Your task to perform on an android device: toggle notifications settings in the gmail app Image 0: 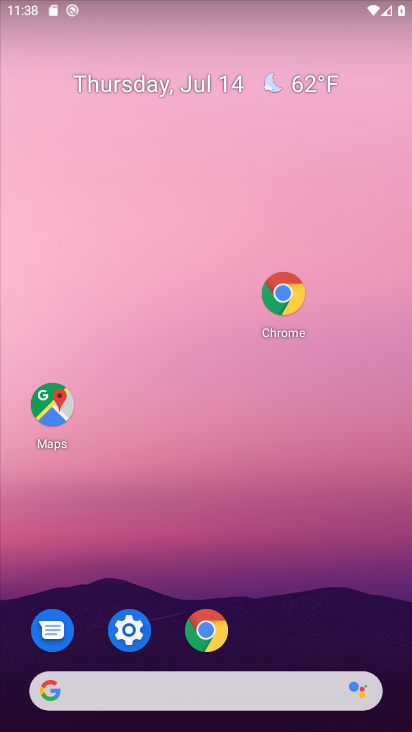
Step 0: drag from (251, 713) to (217, 142)
Your task to perform on an android device: toggle notifications settings in the gmail app Image 1: 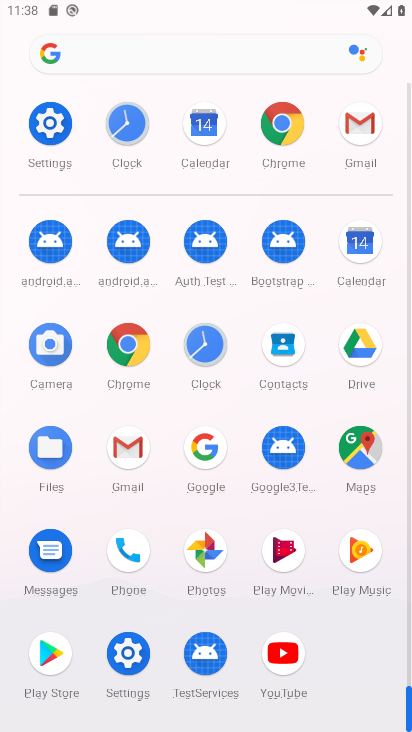
Step 1: click (132, 654)
Your task to perform on an android device: toggle notifications settings in the gmail app Image 2: 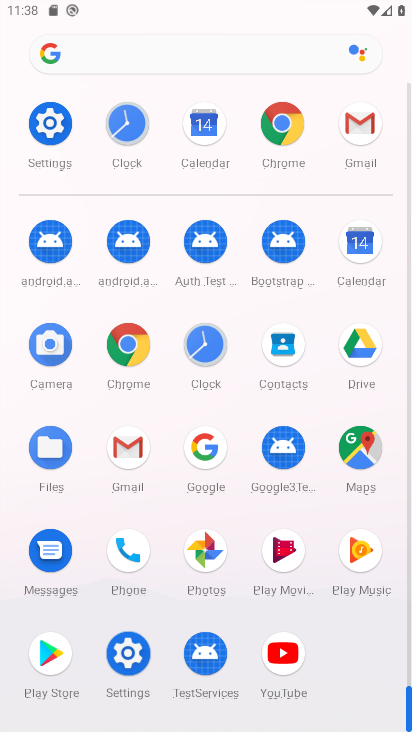
Step 2: click (132, 652)
Your task to perform on an android device: toggle notifications settings in the gmail app Image 3: 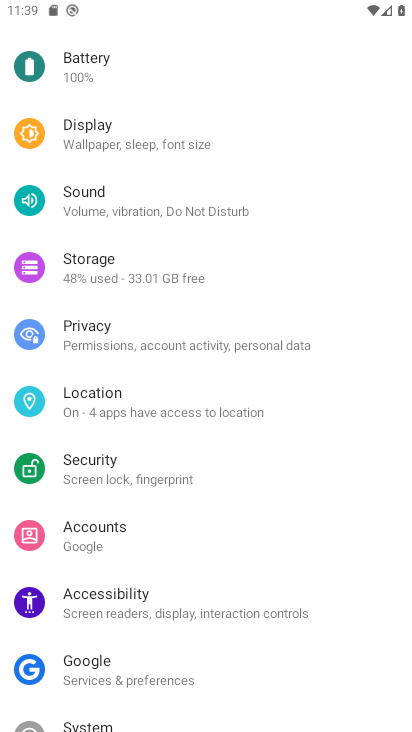
Step 3: drag from (128, 633) to (61, 126)
Your task to perform on an android device: toggle notifications settings in the gmail app Image 4: 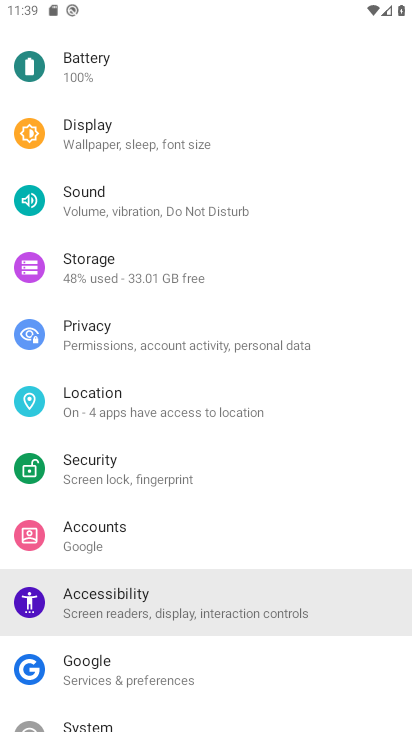
Step 4: drag from (103, 415) to (133, 197)
Your task to perform on an android device: toggle notifications settings in the gmail app Image 5: 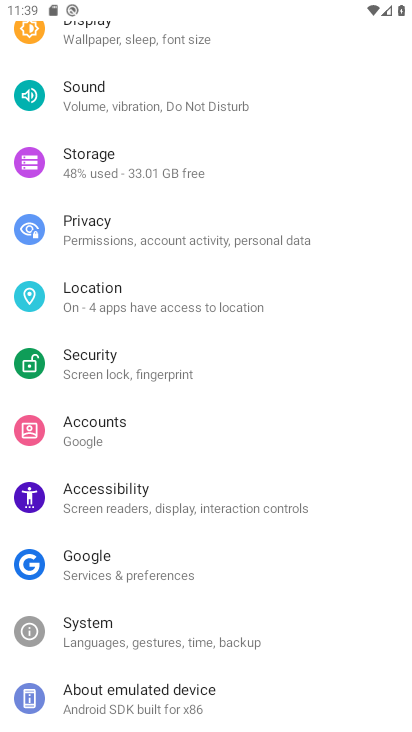
Step 5: drag from (107, 163) to (137, 555)
Your task to perform on an android device: toggle notifications settings in the gmail app Image 6: 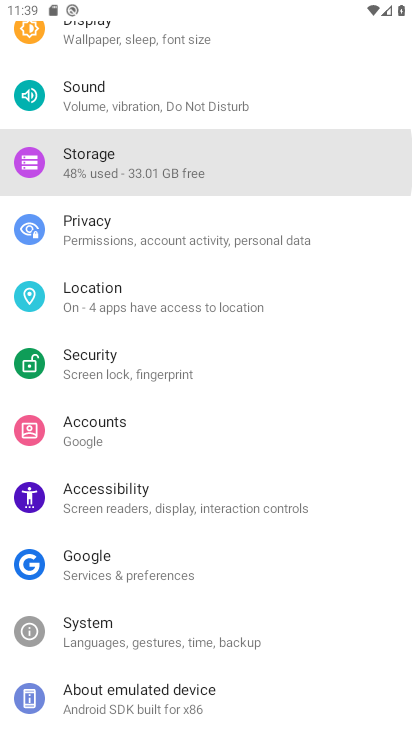
Step 6: drag from (164, 137) to (170, 700)
Your task to perform on an android device: toggle notifications settings in the gmail app Image 7: 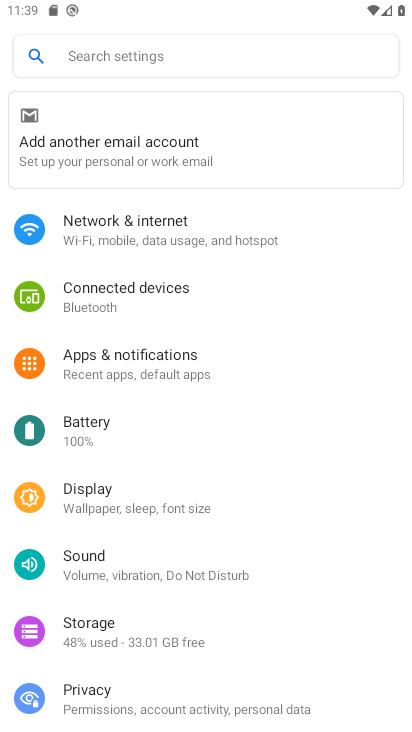
Step 7: click (131, 351)
Your task to perform on an android device: toggle notifications settings in the gmail app Image 8: 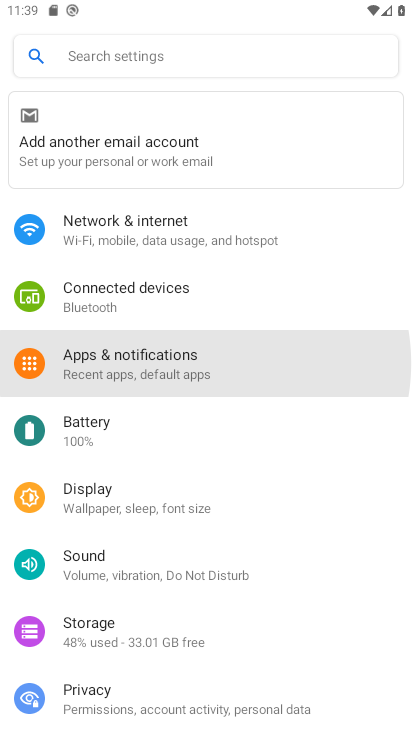
Step 8: click (138, 361)
Your task to perform on an android device: toggle notifications settings in the gmail app Image 9: 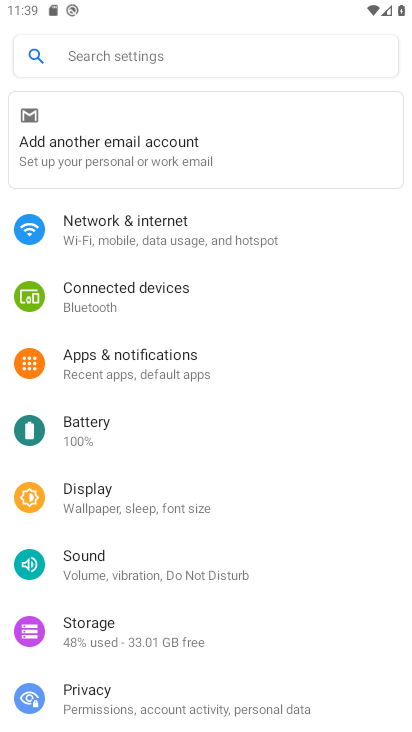
Step 9: click (154, 385)
Your task to perform on an android device: toggle notifications settings in the gmail app Image 10: 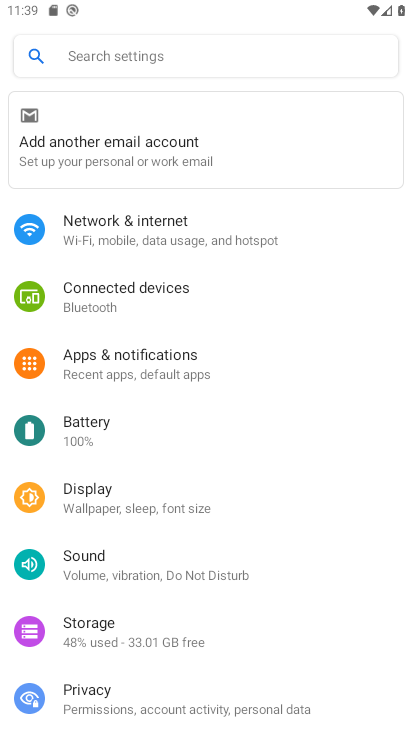
Step 10: click (155, 384)
Your task to perform on an android device: toggle notifications settings in the gmail app Image 11: 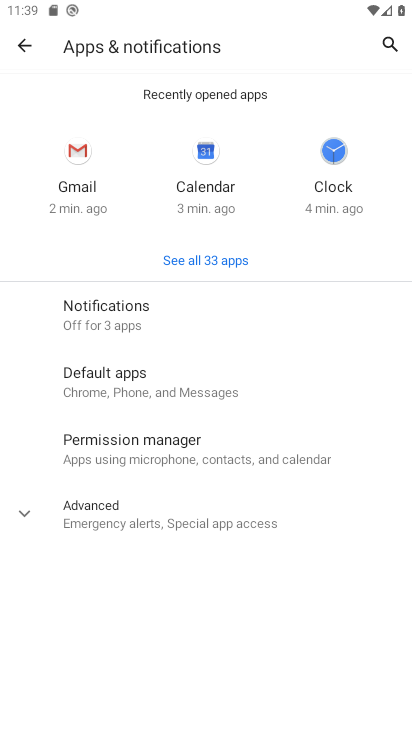
Step 11: click (112, 312)
Your task to perform on an android device: toggle notifications settings in the gmail app Image 12: 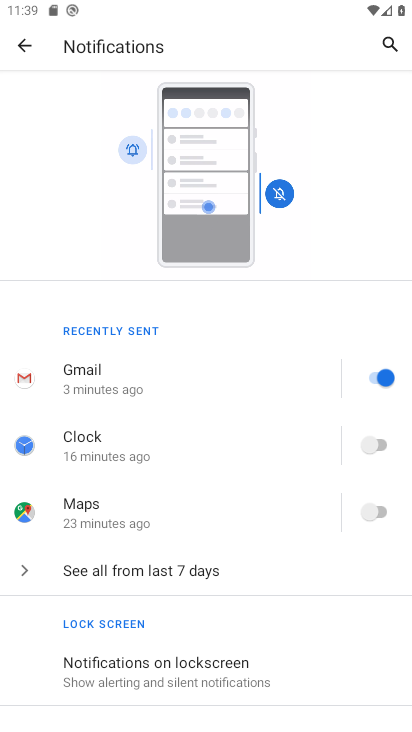
Step 12: drag from (140, 672) to (84, 216)
Your task to perform on an android device: toggle notifications settings in the gmail app Image 13: 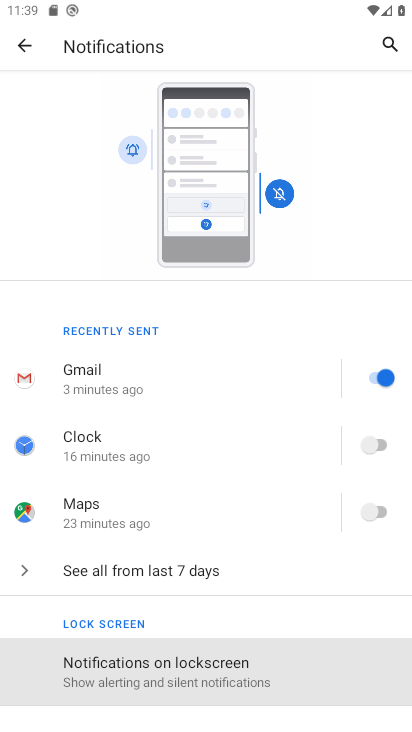
Step 13: drag from (184, 530) to (162, 232)
Your task to perform on an android device: toggle notifications settings in the gmail app Image 14: 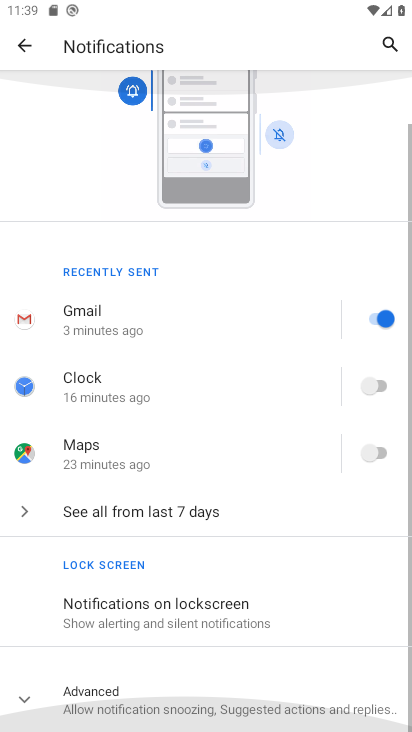
Step 14: drag from (159, 697) to (139, 281)
Your task to perform on an android device: toggle notifications settings in the gmail app Image 15: 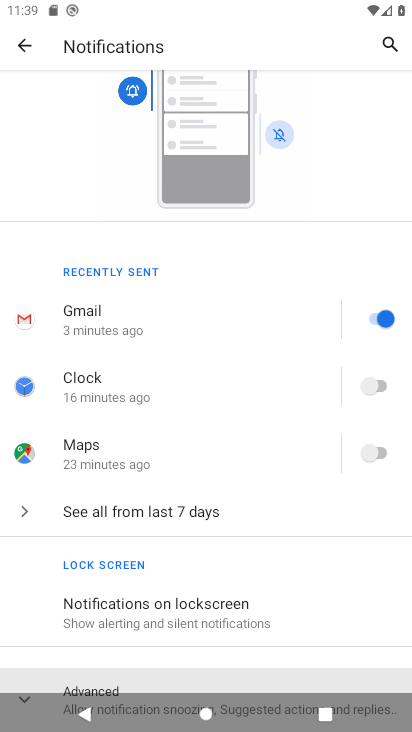
Step 15: drag from (122, 633) to (82, 295)
Your task to perform on an android device: toggle notifications settings in the gmail app Image 16: 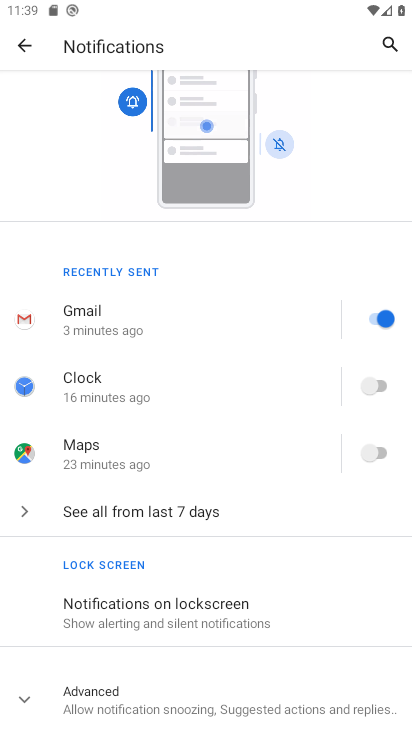
Step 16: click (106, 698)
Your task to perform on an android device: toggle notifications settings in the gmail app Image 17: 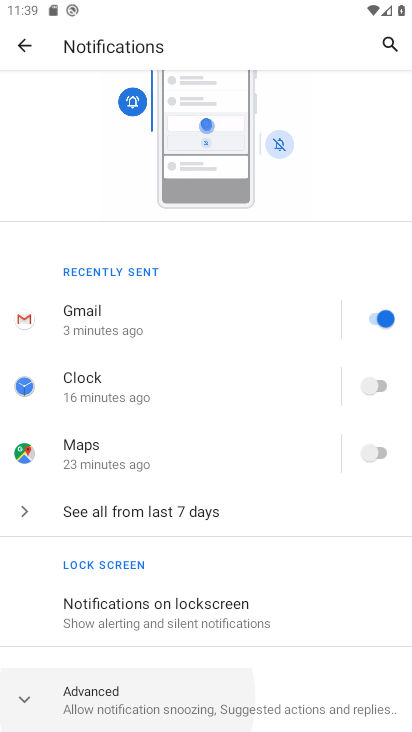
Step 17: click (104, 700)
Your task to perform on an android device: toggle notifications settings in the gmail app Image 18: 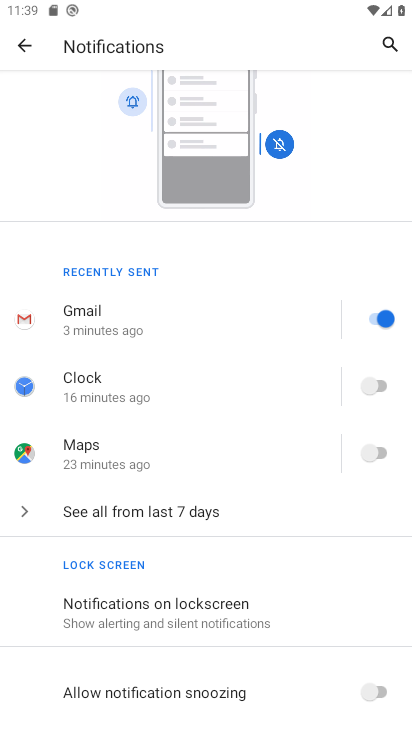
Step 18: drag from (213, 645) to (247, 271)
Your task to perform on an android device: toggle notifications settings in the gmail app Image 19: 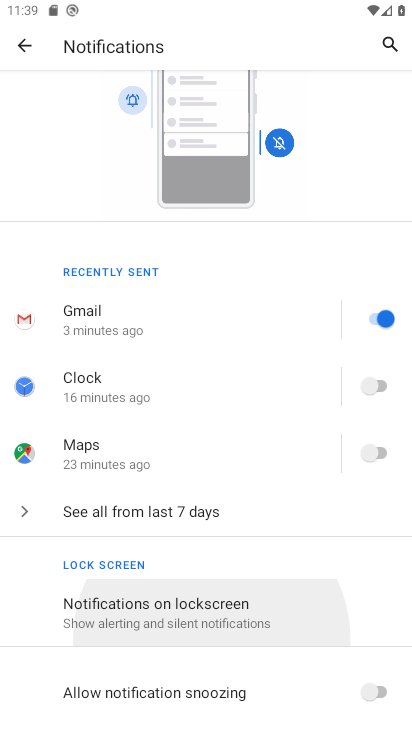
Step 19: drag from (224, 564) to (318, 40)
Your task to perform on an android device: toggle notifications settings in the gmail app Image 20: 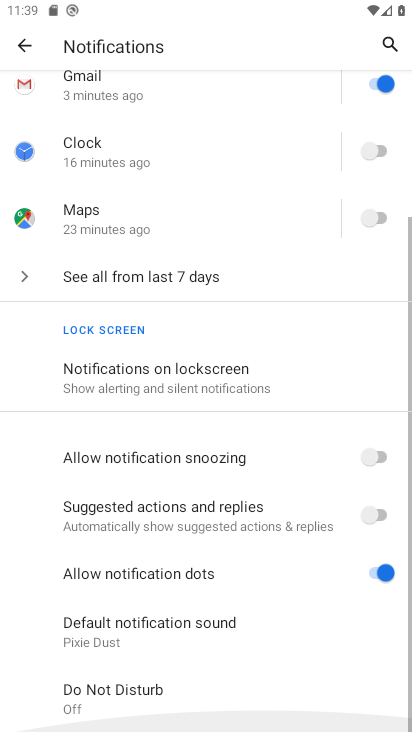
Step 20: drag from (226, 422) to (206, 84)
Your task to perform on an android device: toggle notifications settings in the gmail app Image 21: 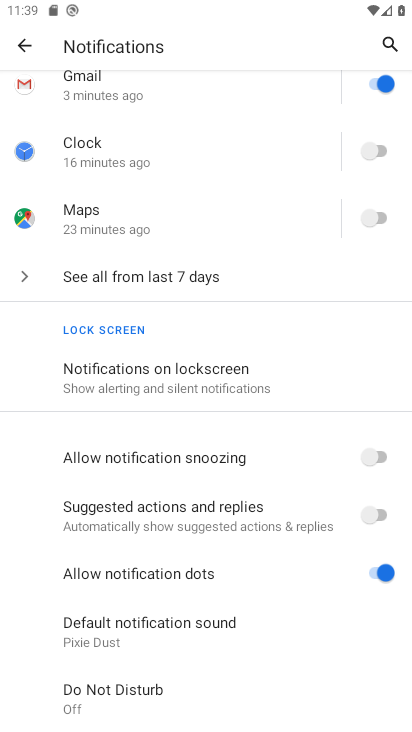
Step 21: click (382, 569)
Your task to perform on an android device: toggle notifications settings in the gmail app Image 22: 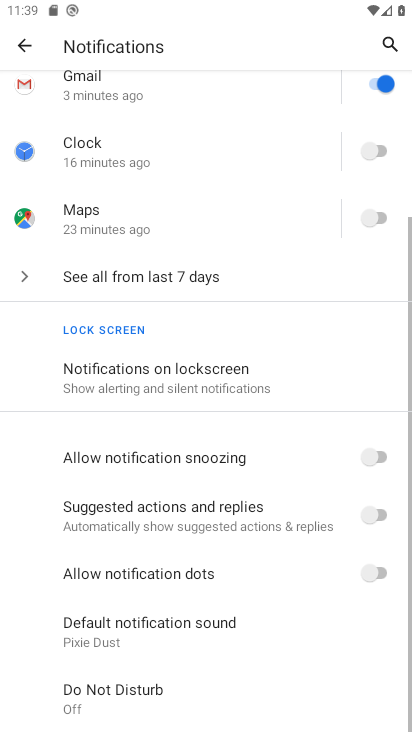
Step 22: click (371, 512)
Your task to perform on an android device: toggle notifications settings in the gmail app Image 23: 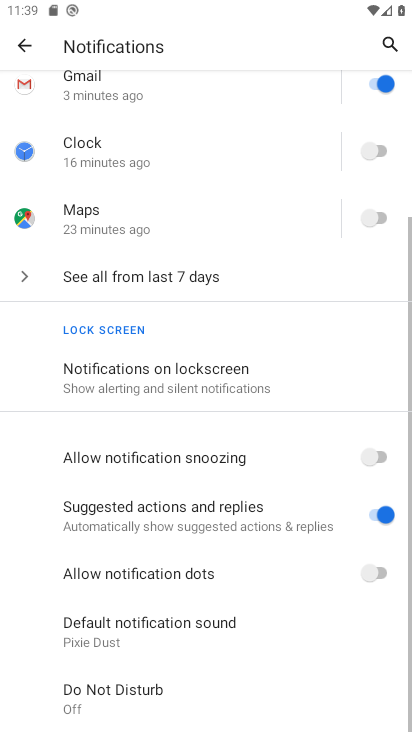
Step 23: click (369, 454)
Your task to perform on an android device: toggle notifications settings in the gmail app Image 24: 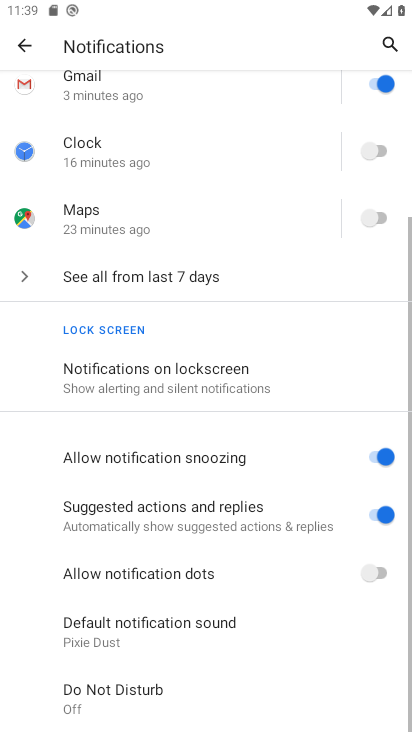
Step 24: click (377, 208)
Your task to perform on an android device: toggle notifications settings in the gmail app Image 25: 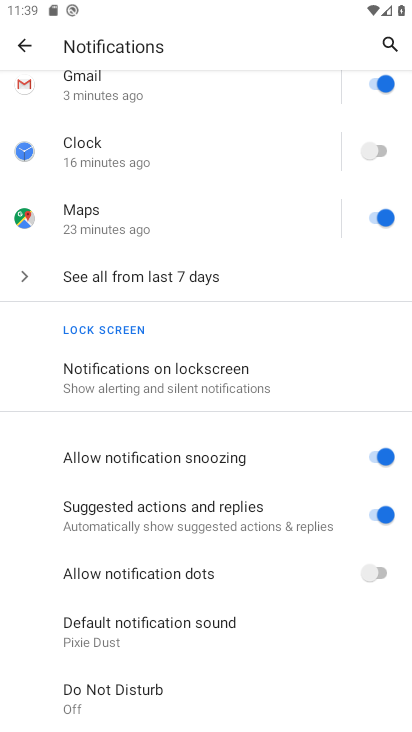
Step 25: click (368, 134)
Your task to perform on an android device: toggle notifications settings in the gmail app Image 26: 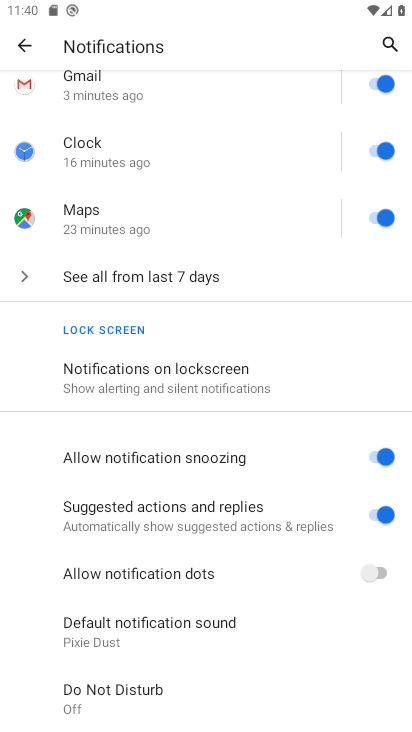
Step 26: task complete